Your task to perform on an android device: open app "Pandora - Music & Podcasts" (install if not already installed) Image 0: 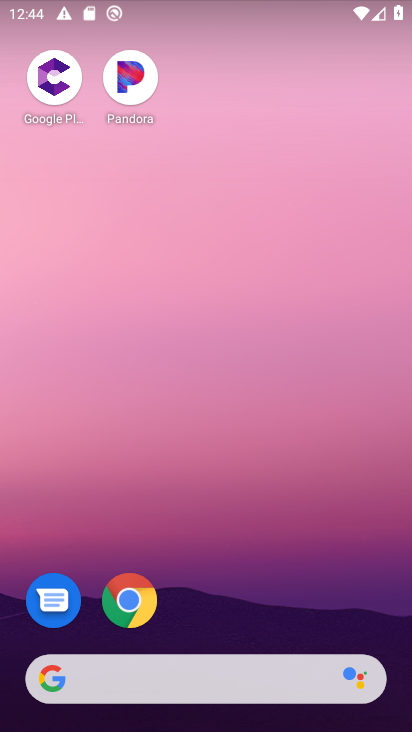
Step 0: drag from (236, 654) to (236, 186)
Your task to perform on an android device: open app "Pandora - Music & Podcasts" (install if not already installed) Image 1: 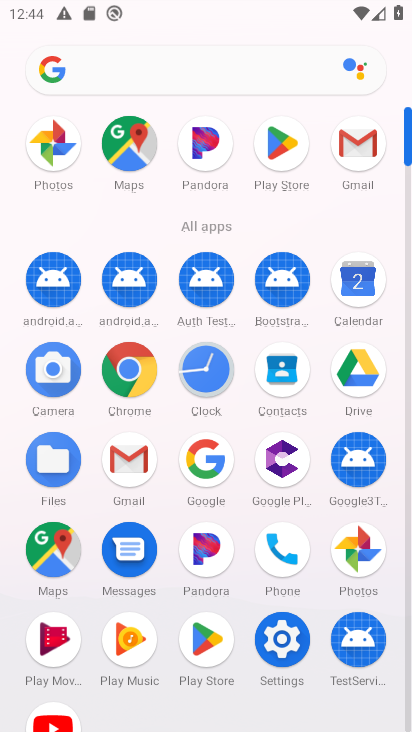
Step 1: click (207, 150)
Your task to perform on an android device: open app "Pandora - Music & Podcasts" (install if not already installed) Image 2: 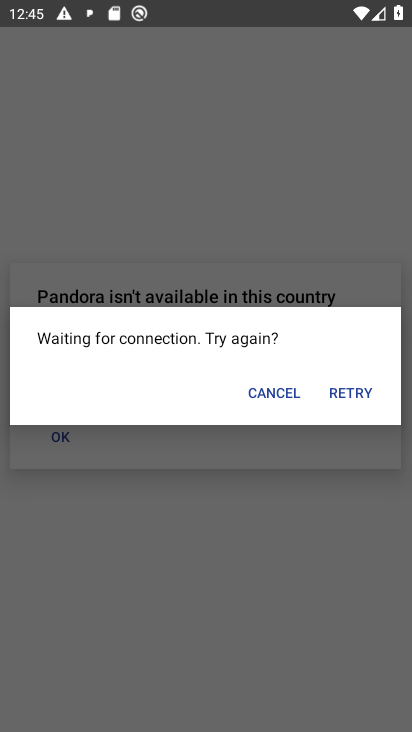
Step 2: click (335, 397)
Your task to perform on an android device: open app "Pandora - Music & Podcasts" (install if not already installed) Image 3: 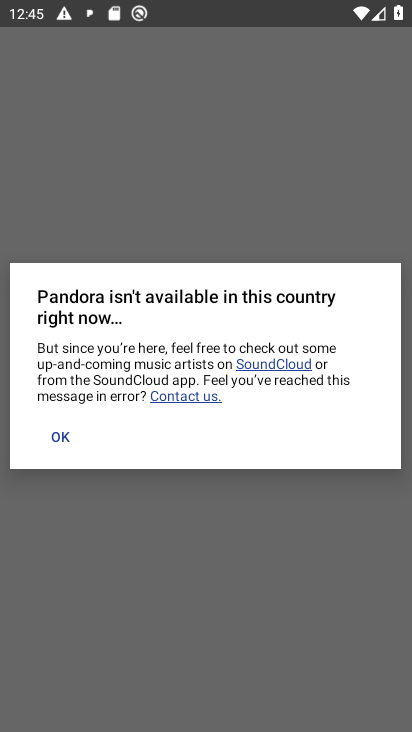
Step 3: task complete